Your task to perform on an android device: Search for "bose soundsport free" on walmart, select the first entry, and add it to the cart. Image 0: 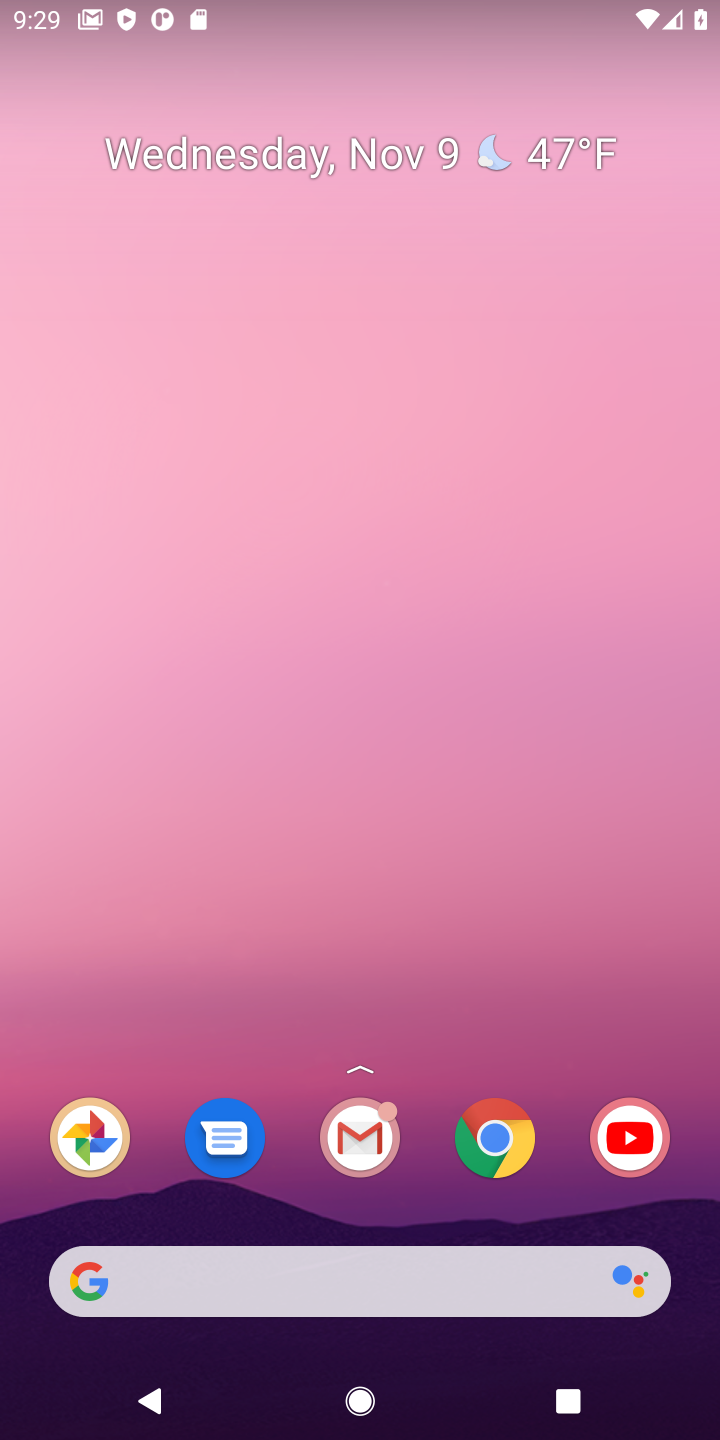
Step 0: drag from (435, 1220) to (436, 110)
Your task to perform on an android device: Search for "bose soundsport free" on walmart, select the first entry, and add it to the cart. Image 1: 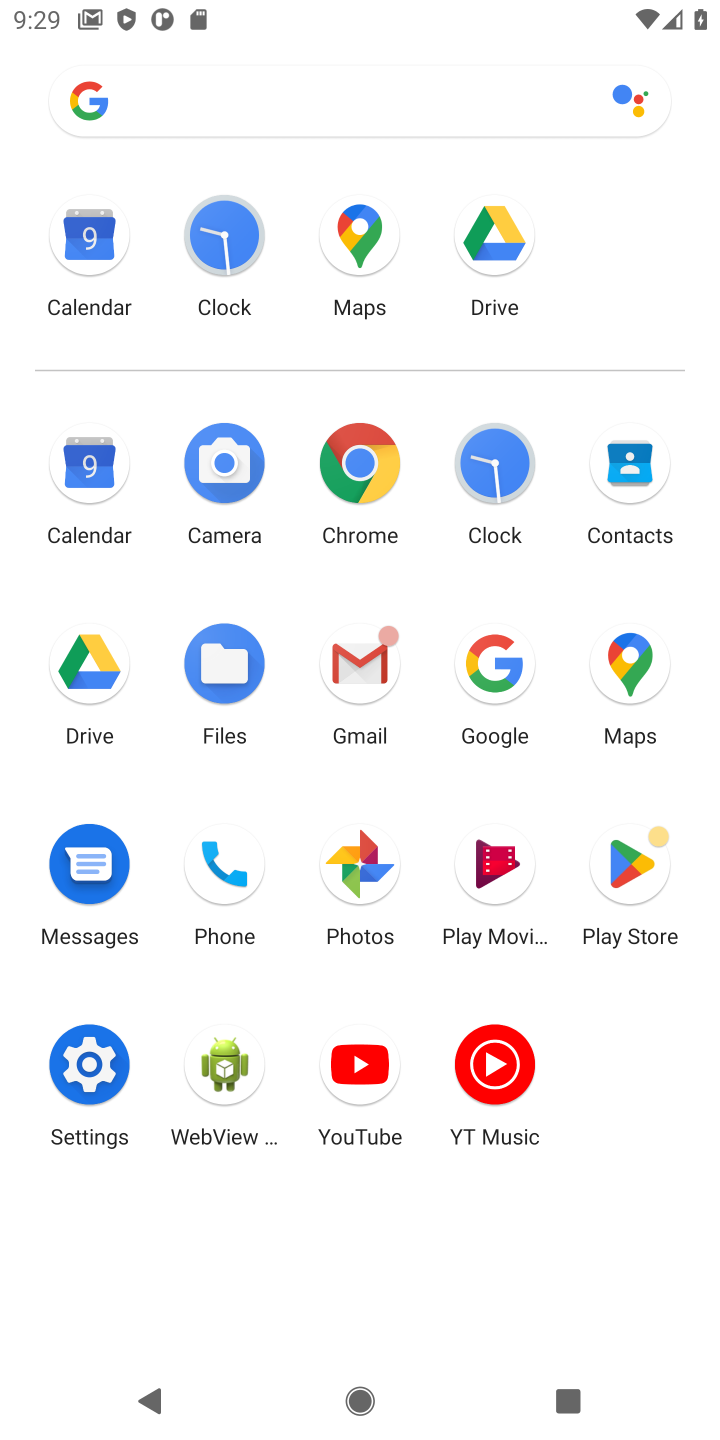
Step 1: click (371, 461)
Your task to perform on an android device: Search for "bose soundsport free" on walmart, select the first entry, and add it to the cart. Image 2: 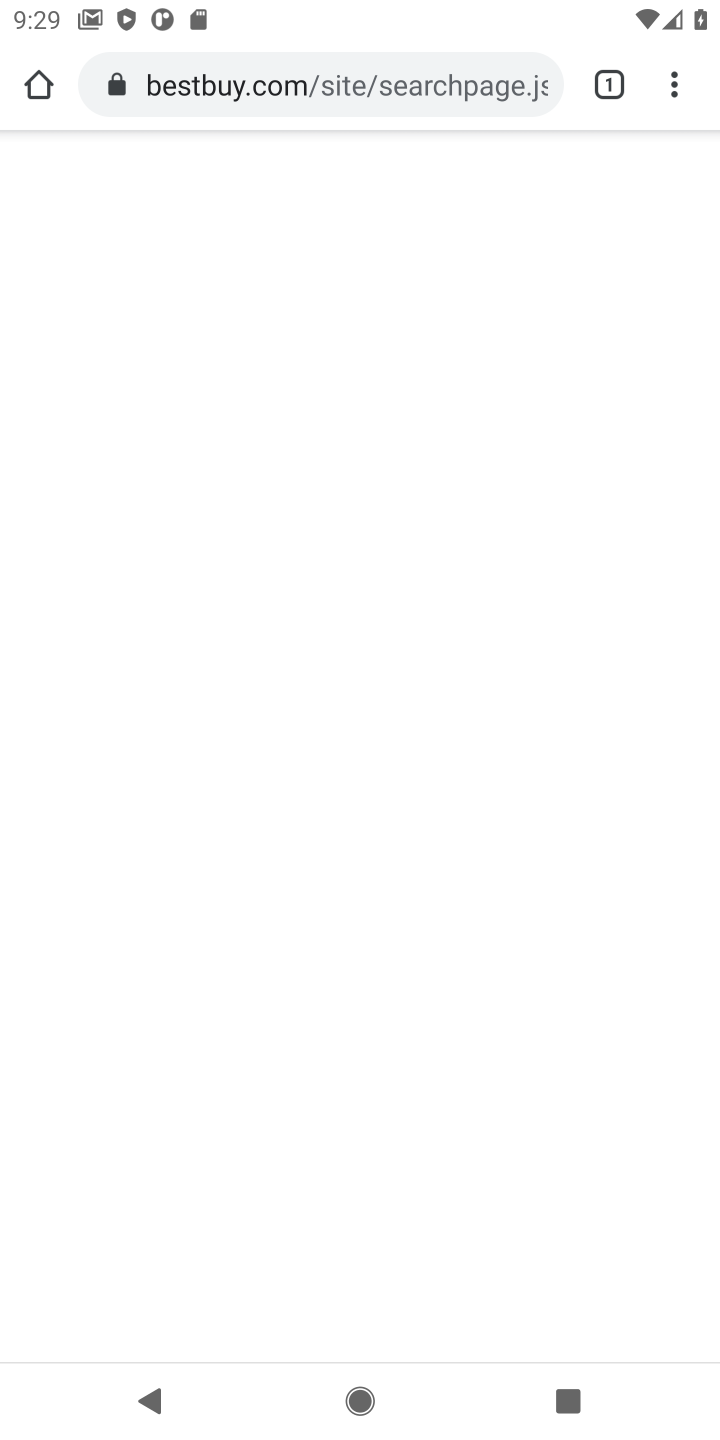
Step 2: click (362, 87)
Your task to perform on an android device: Search for "bose soundsport free" on walmart, select the first entry, and add it to the cart. Image 3: 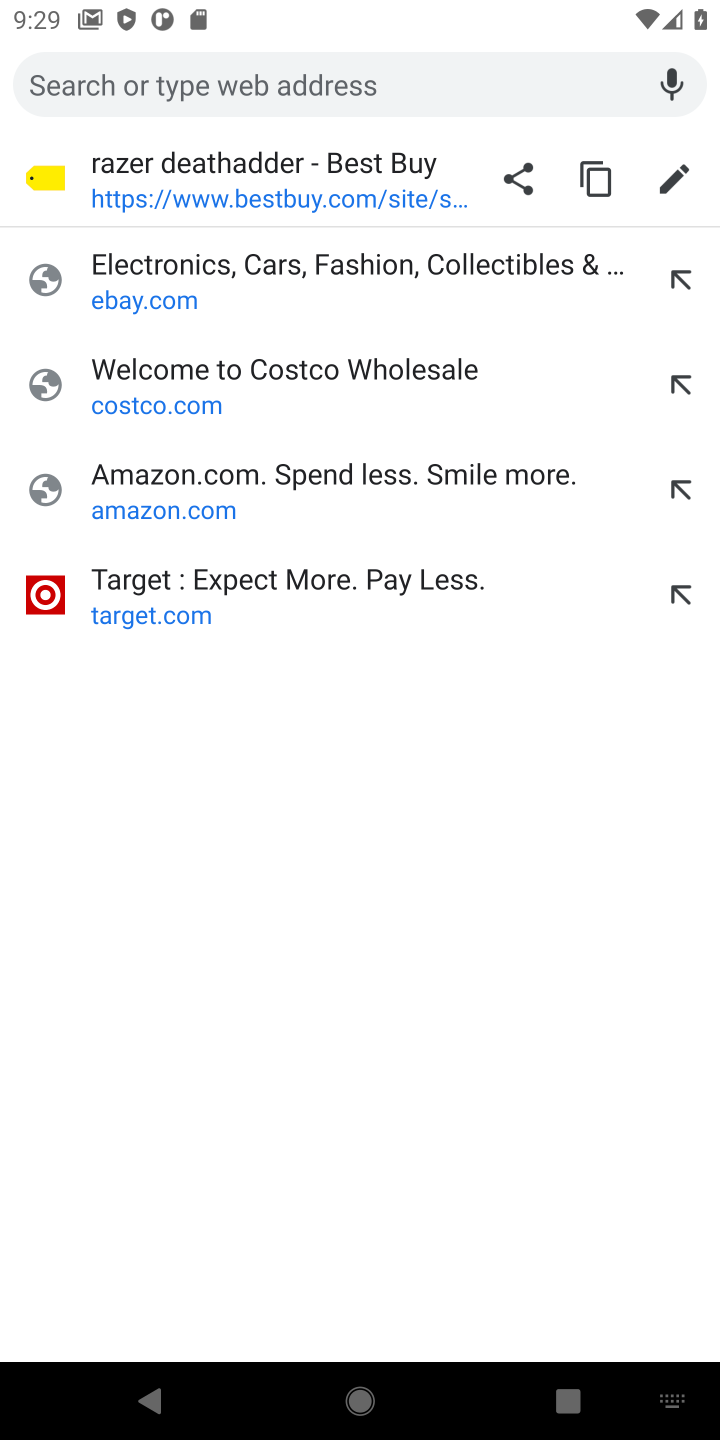
Step 3: type "walmart.com"
Your task to perform on an android device: Search for "bose soundsport free" on walmart, select the first entry, and add it to the cart. Image 4: 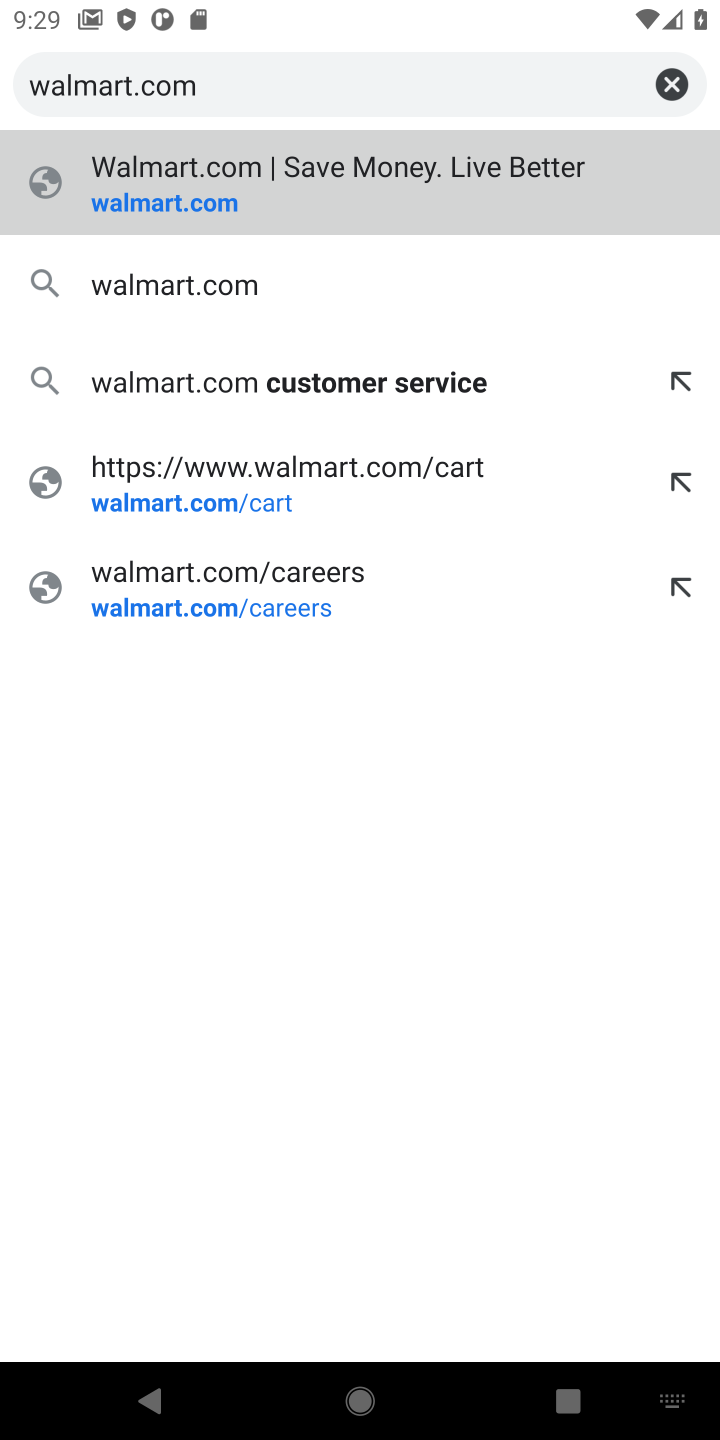
Step 4: press enter
Your task to perform on an android device: Search for "bose soundsport free" on walmart, select the first entry, and add it to the cart. Image 5: 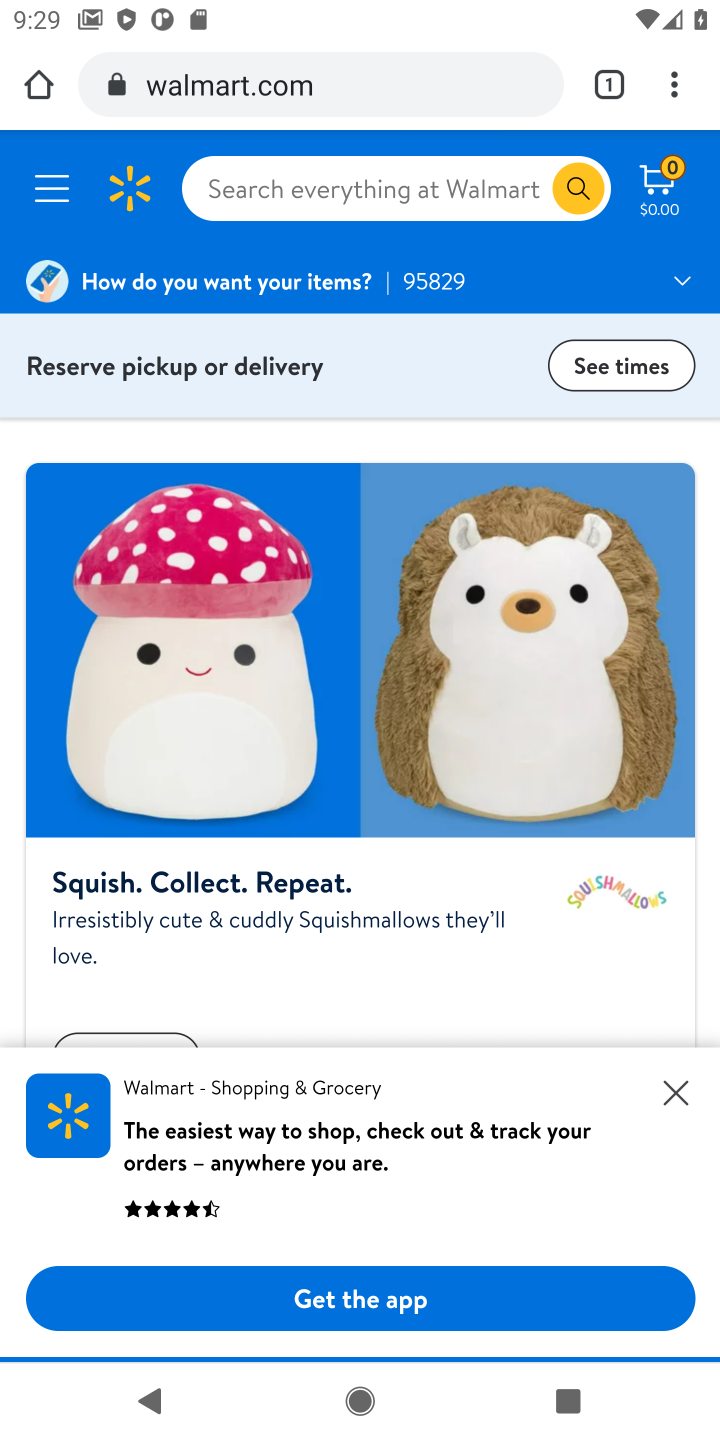
Step 5: click (380, 170)
Your task to perform on an android device: Search for "bose soundsport free" on walmart, select the first entry, and add it to the cart. Image 6: 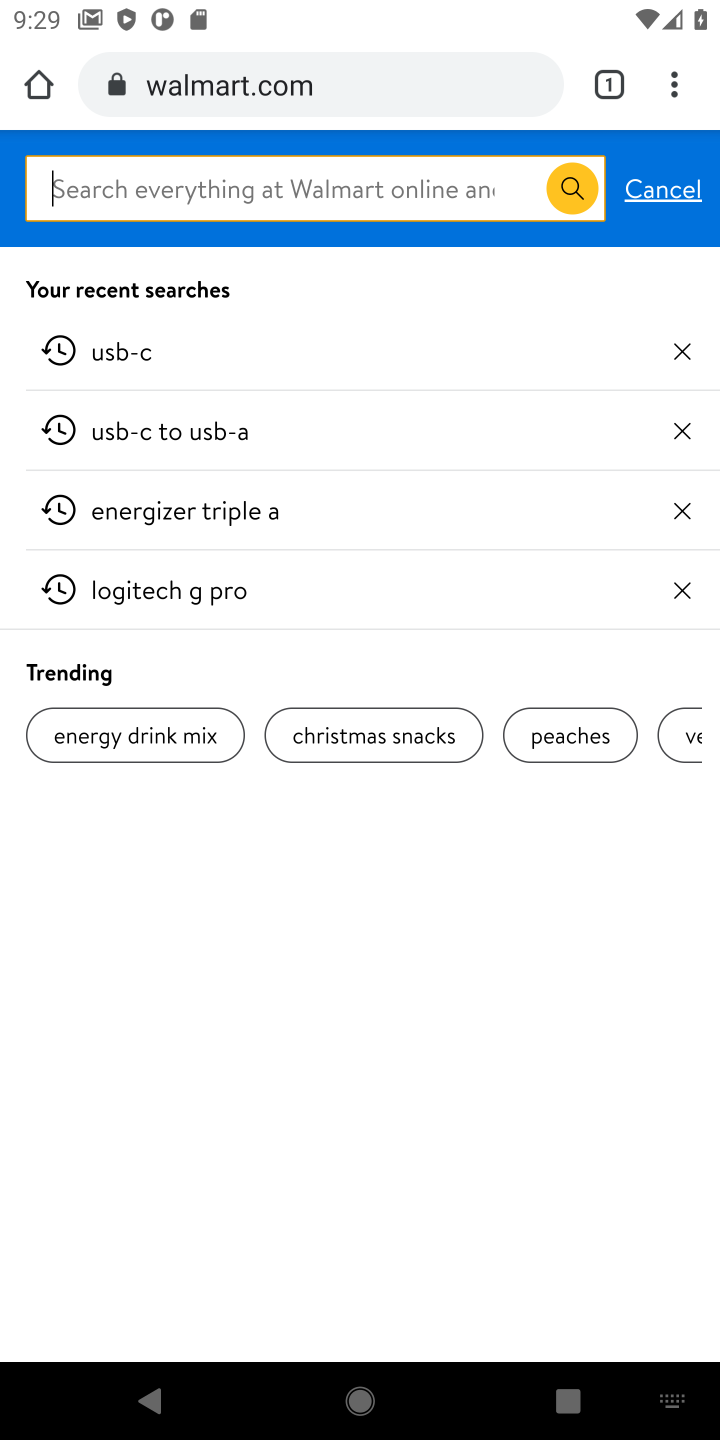
Step 6: type "bose soundsport free"
Your task to perform on an android device: Search for "bose soundsport free" on walmart, select the first entry, and add it to the cart. Image 7: 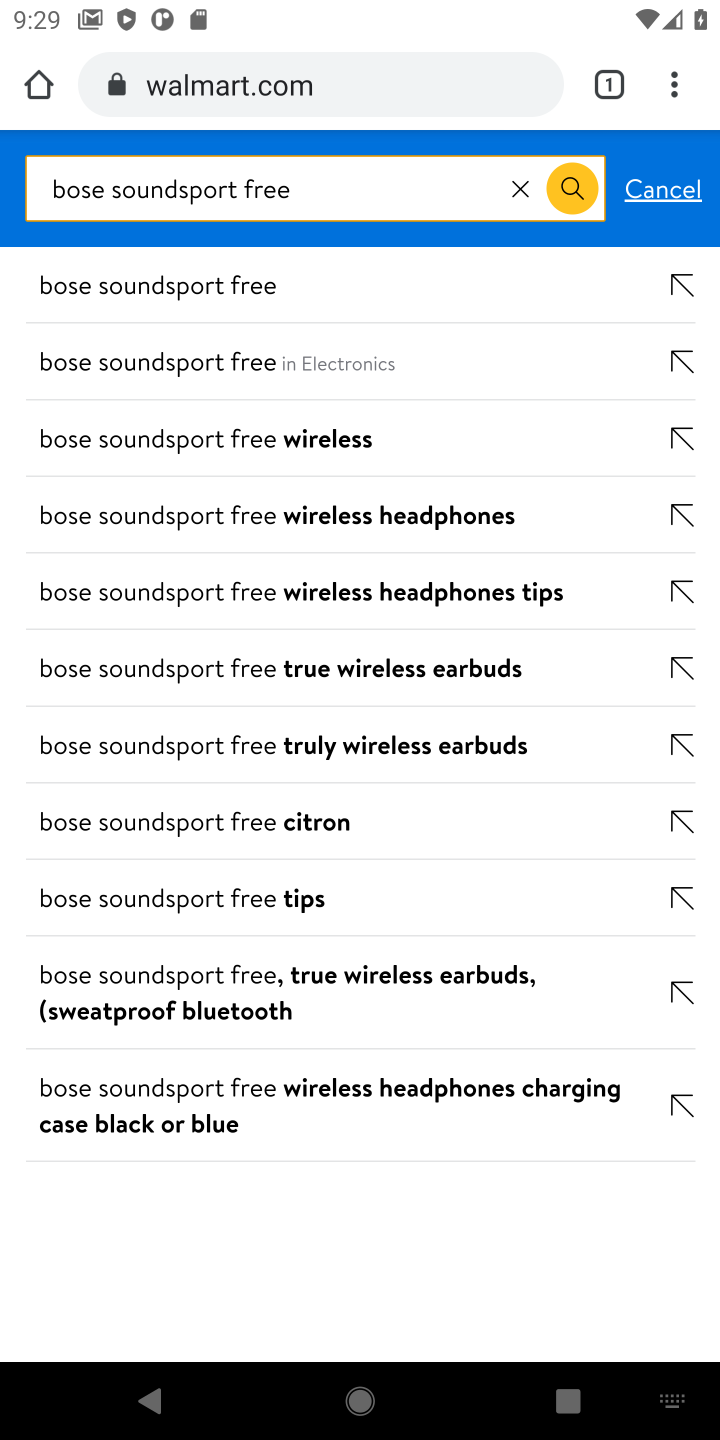
Step 7: press enter
Your task to perform on an android device: Search for "bose soundsport free" on walmart, select the first entry, and add it to the cart. Image 8: 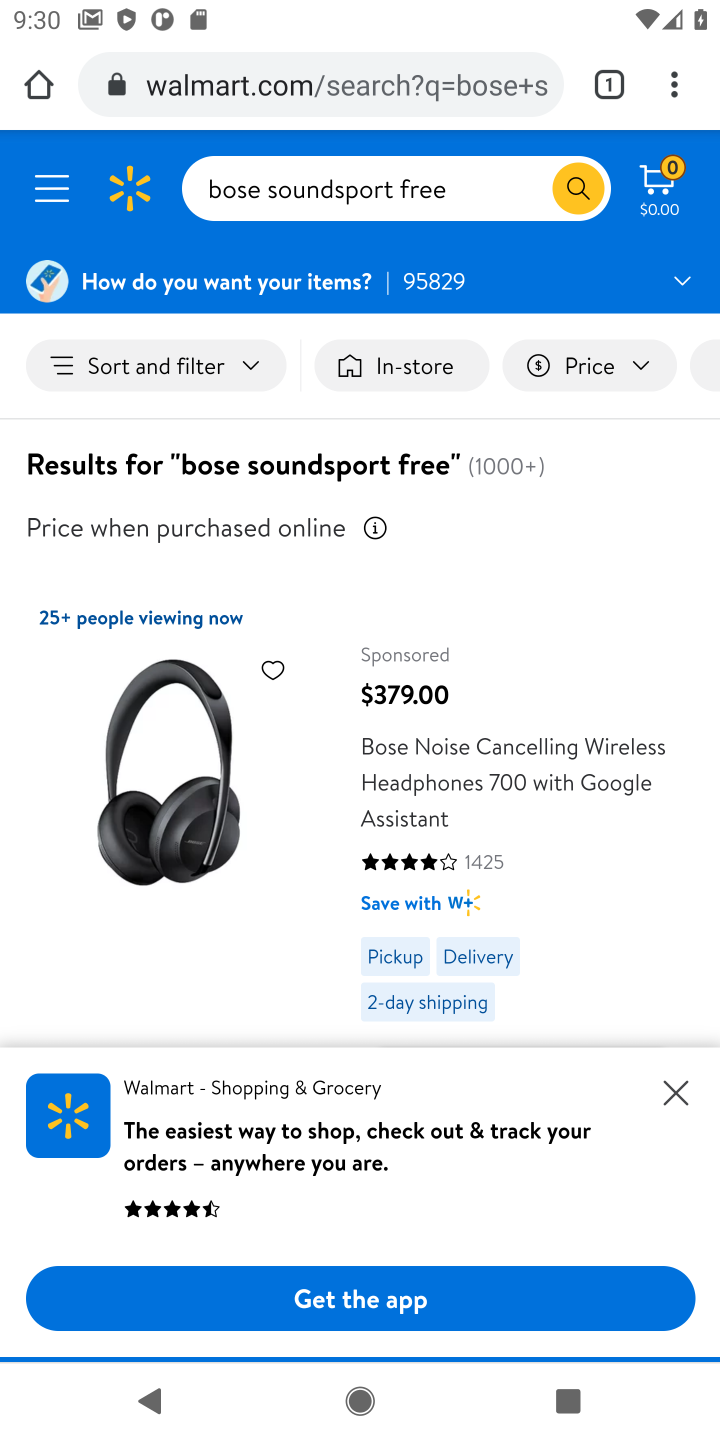
Step 8: task complete